Your task to perform on an android device: toggle wifi Image 0: 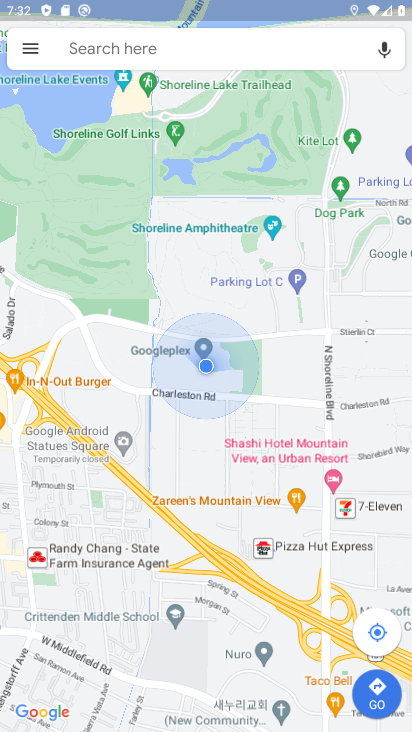
Step 0: task complete